Your task to perform on an android device: allow notifications from all sites in the chrome app Image 0: 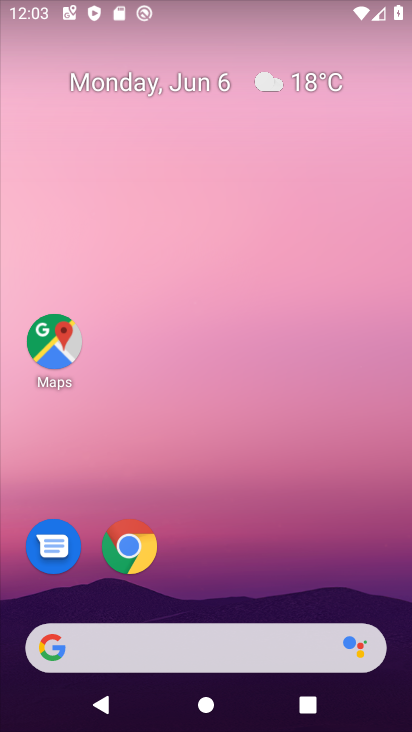
Step 0: click (142, 552)
Your task to perform on an android device: allow notifications from all sites in the chrome app Image 1: 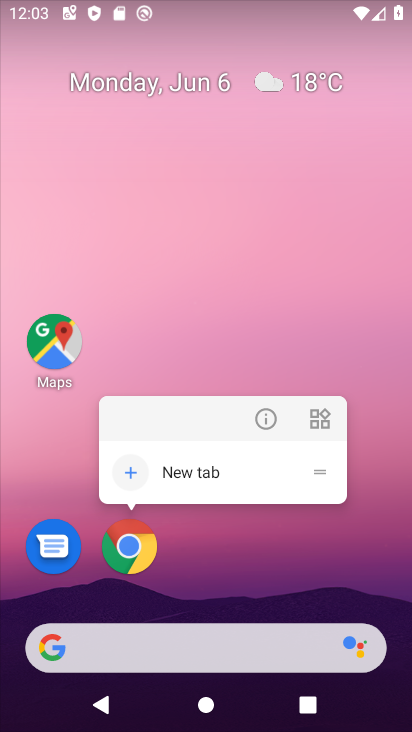
Step 1: click (135, 553)
Your task to perform on an android device: allow notifications from all sites in the chrome app Image 2: 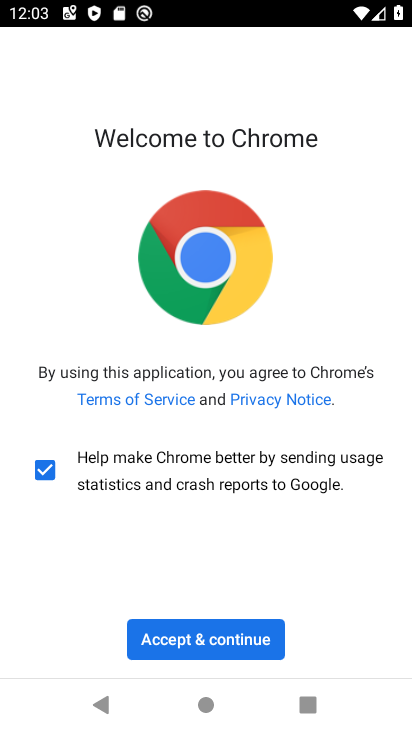
Step 2: click (238, 642)
Your task to perform on an android device: allow notifications from all sites in the chrome app Image 3: 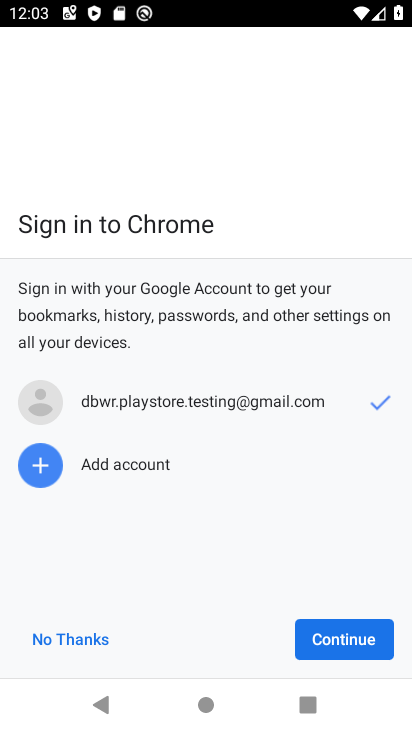
Step 3: click (346, 634)
Your task to perform on an android device: allow notifications from all sites in the chrome app Image 4: 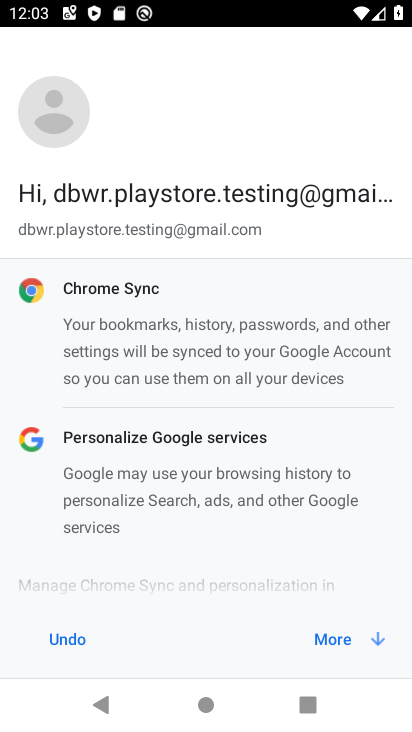
Step 4: click (346, 637)
Your task to perform on an android device: allow notifications from all sites in the chrome app Image 5: 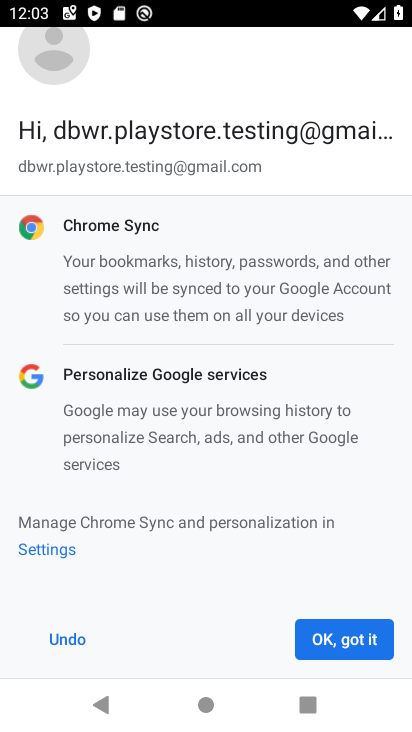
Step 5: click (346, 637)
Your task to perform on an android device: allow notifications from all sites in the chrome app Image 6: 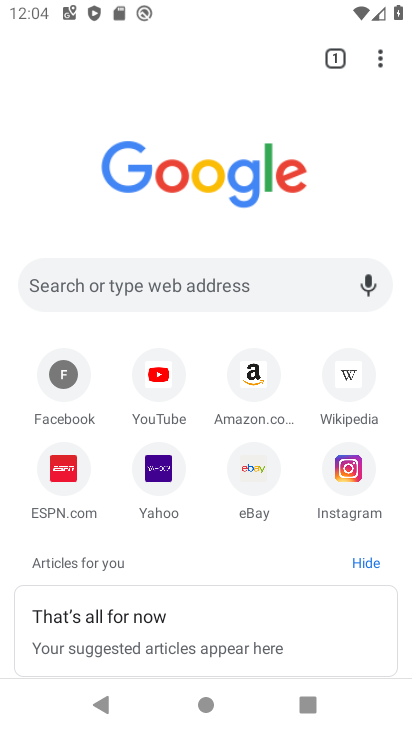
Step 6: click (379, 62)
Your task to perform on an android device: allow notifications from all sites in the chrome app Image 7: 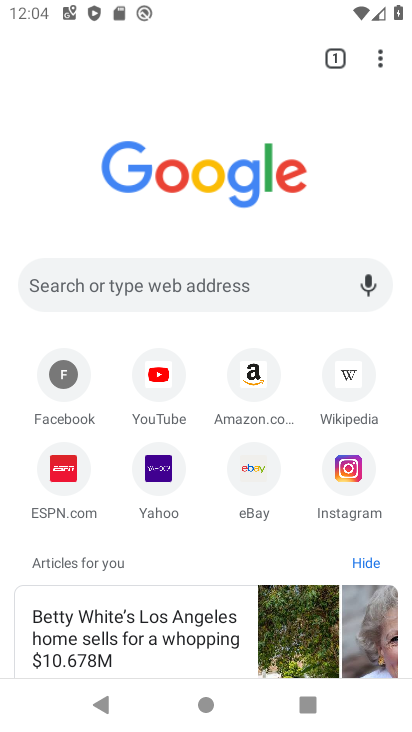
Step 7: click (383, 67)
Your task to perform on an android device: allow notifications from all sites in the chrome app Image 8: 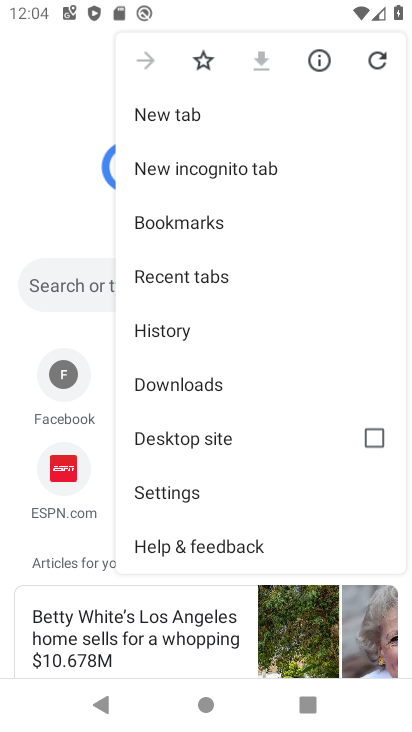
Step 8: click (171, 490)
Your task to perform on an android device: allow notifications from all sites in the chrome app Image 9: 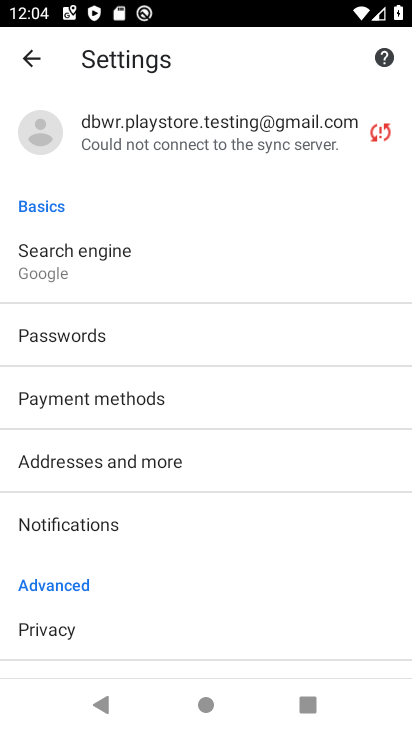
Step 9: click (95, 528)
Your task to perform on an android device: allow notifications from all sites in the chrome app Image 10: 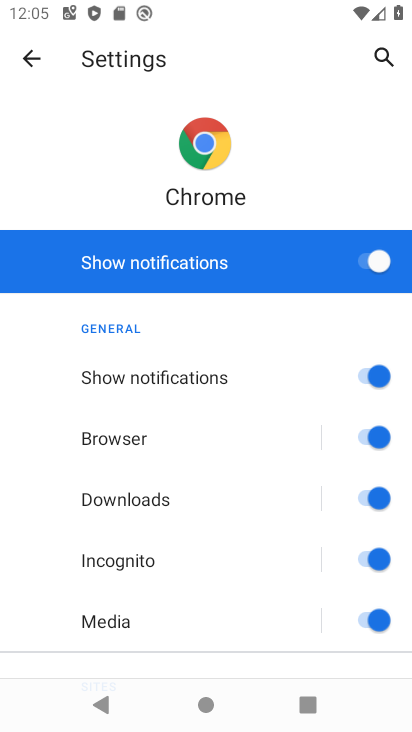
Step 10: task complete